Your task to perform on an android device: Open location settings Image 0: 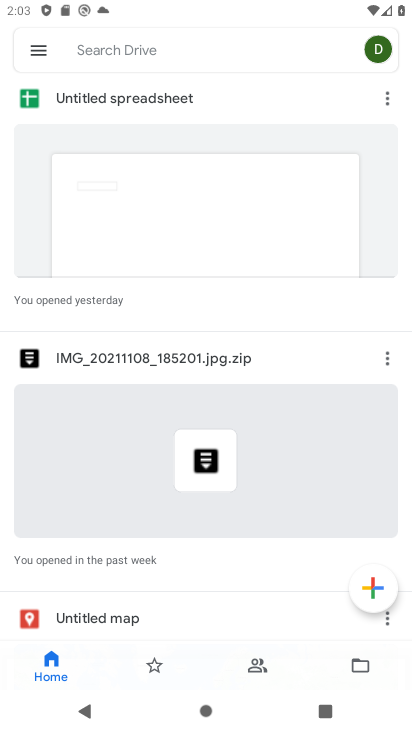
Step 0: press home button
Your task to perform on an android device: Open location settings Image 1: 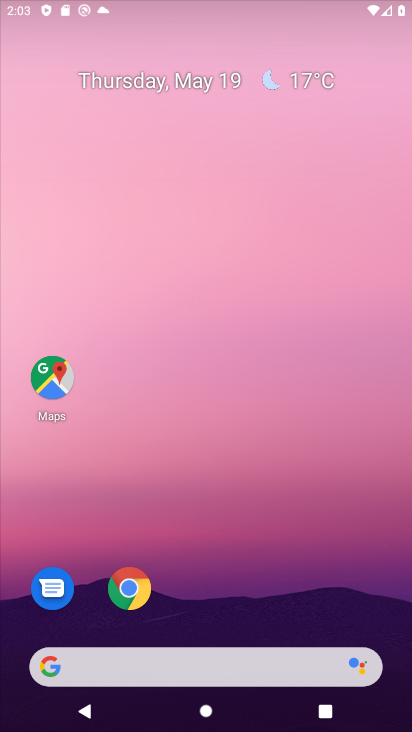
Step 1: drag from (303, 595) to (256, 196)
Your task to perform on an android device: Open location settings Image 2: 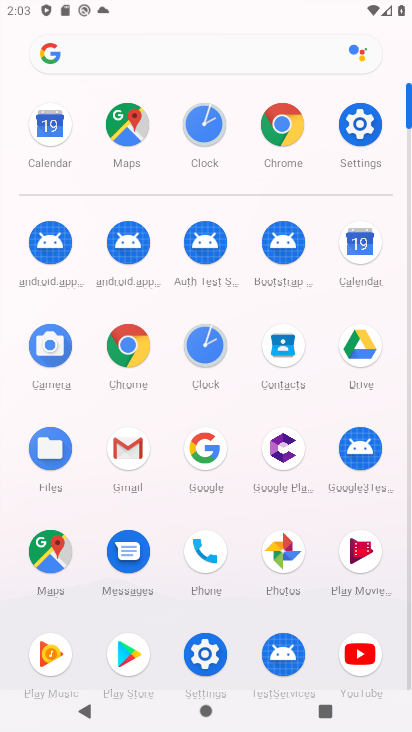
Step 2: click (354, 129)
Your task to perform on an android device: Open location settings Image 3: 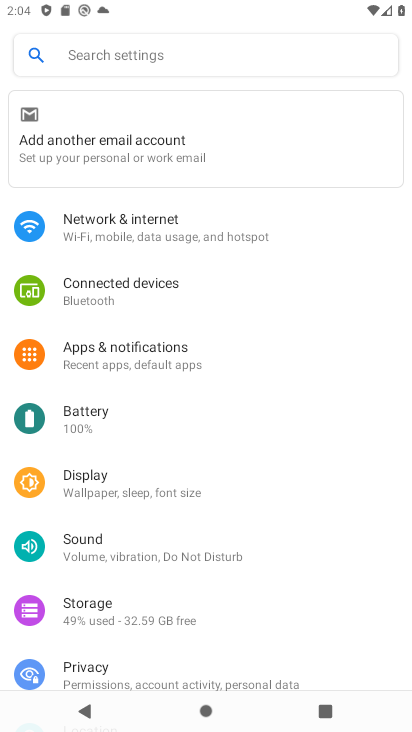
Step 3: drag from (114, 611) to (183, 296)
Your task to perform on an android device: Open location settings Image 4: 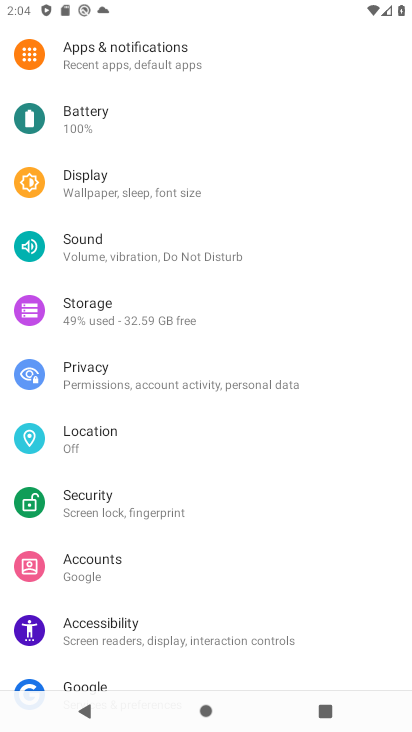
Step 4: click (62, 448)
Your task to perform on an android device: Open location settings Image 5: 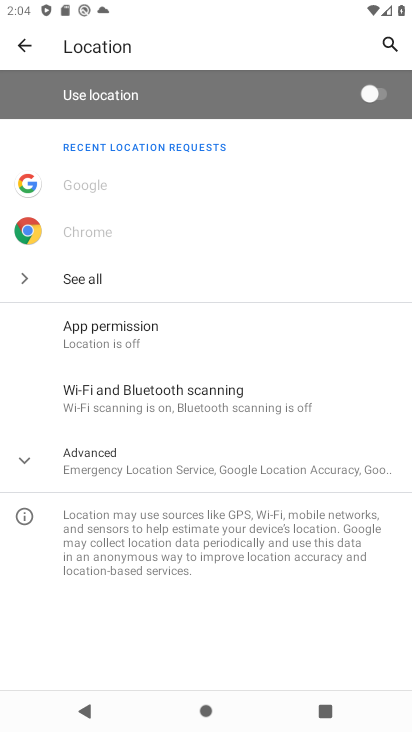
Step 5: task complete